Your task to perform on an android device: Open battery settings Image 0: 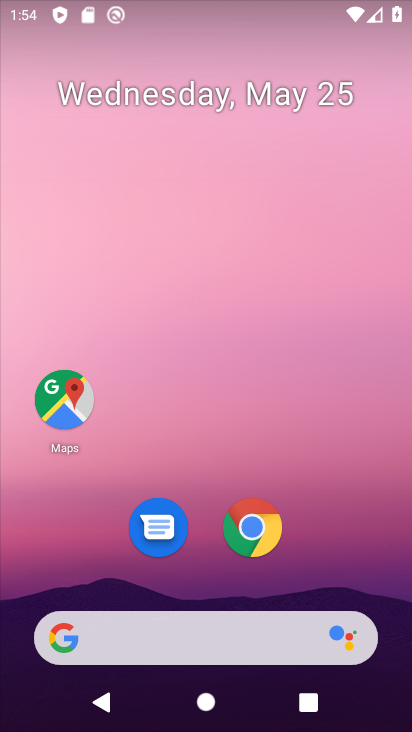
Step 0: drag from (212, 593) to (248, 158)
Your task to perform on an android device: Open battery settings Image 1: 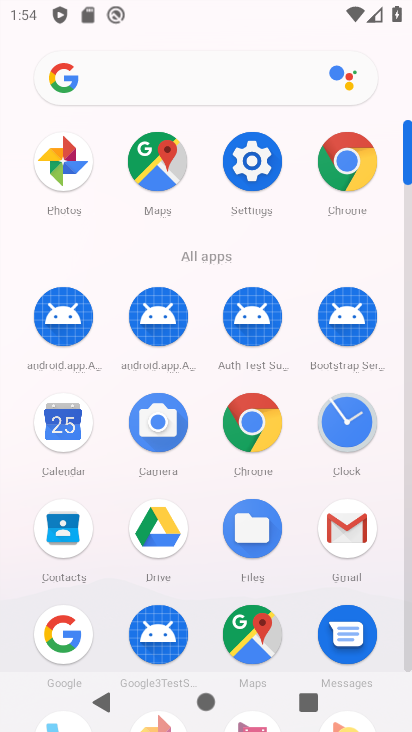
Step 1: click (250, 157)
Your task to perform on an android device: Open battery settings Image 2: 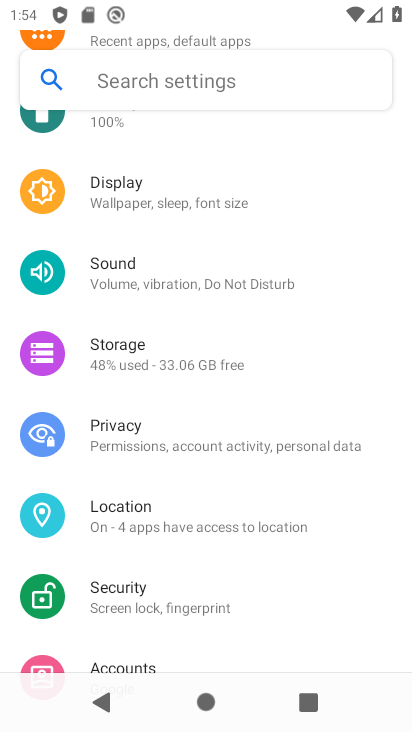
Step 2: drag from (146, 176) to (260, 501)
Your task to perform on an android device: Open battery settings Image 3: 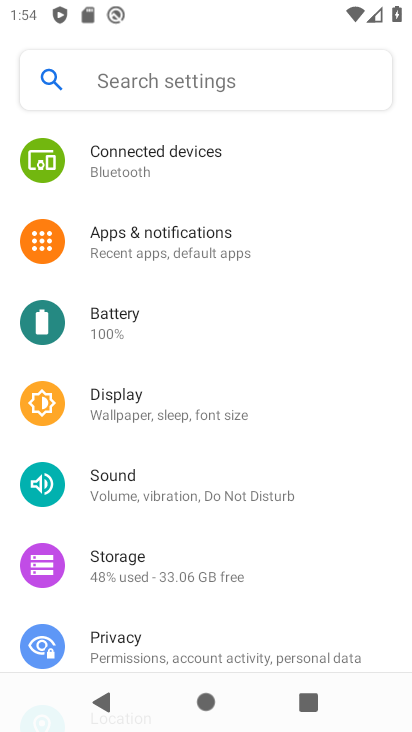
Step 3: click (127, 311)
Your task to perform on an android device: Open battery settings Image 4: 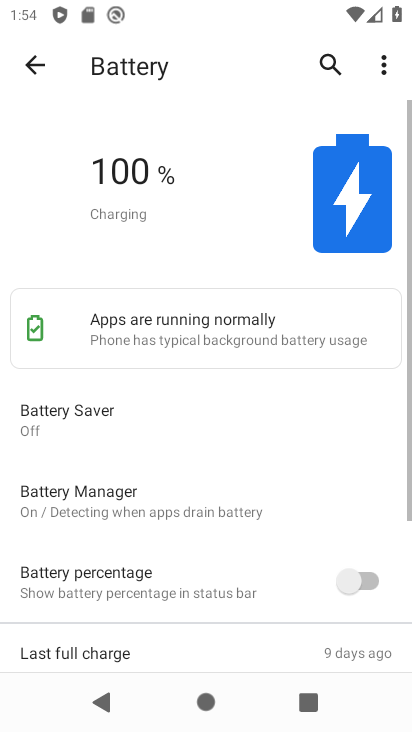
Step 4: task complete